Your task to perform on an android device: change the clock display to analog Image 0: 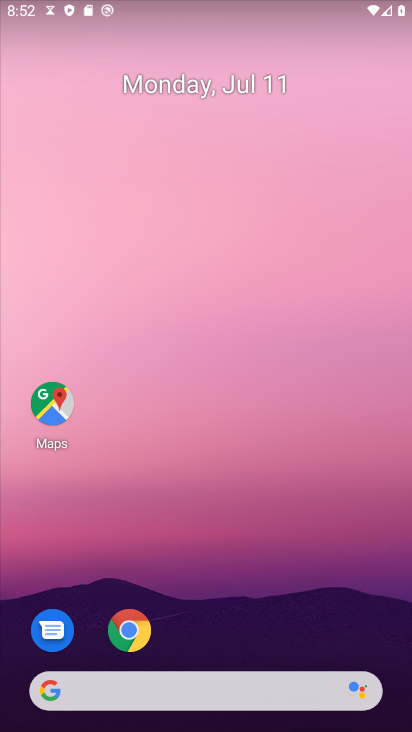
Step 0: drag from (197, 655) to (316, 58)
Your task to perform on an android device: change the clock display to analog Image 1: 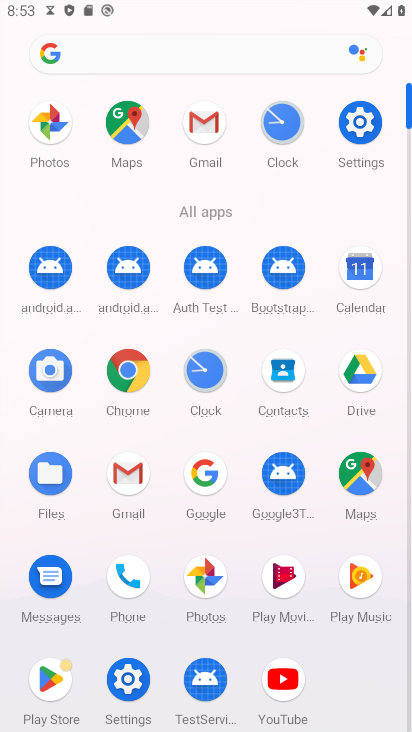
Step 1: click (213, 396)
Your task to perform on an android device: change the clock display to analog Image 2: 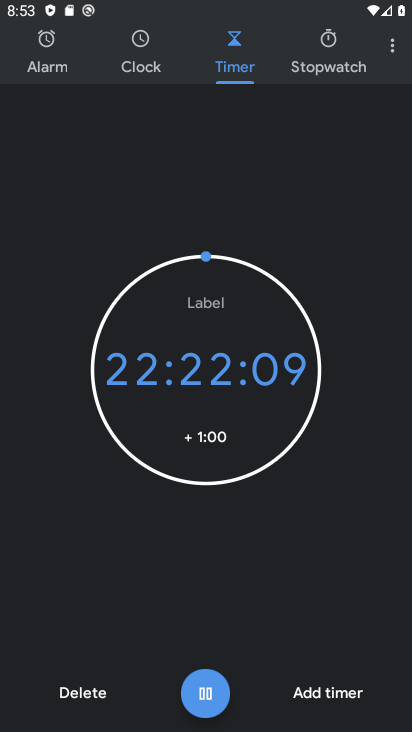
Step 2: click (390, 47)
Your task to perform on an android device: change the clock display to analog Image 3: 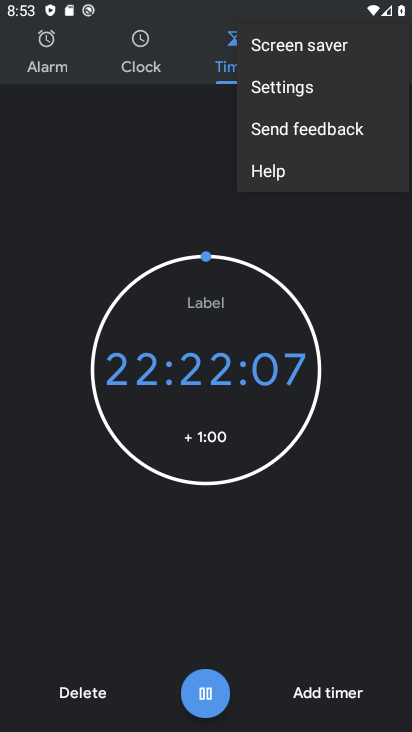
Step 3: click (346, 86)
Your task to perform on an android device: change the clock display to analog Image 4: 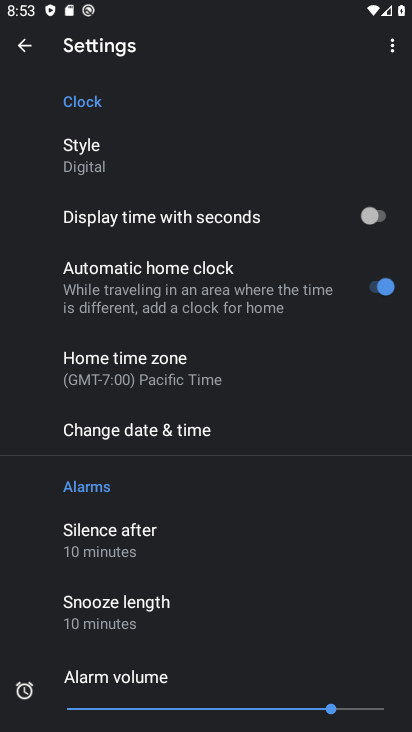
Step 4: click (151, 141)
Your task to perform on an android device: change the clock display to analog Image 5: 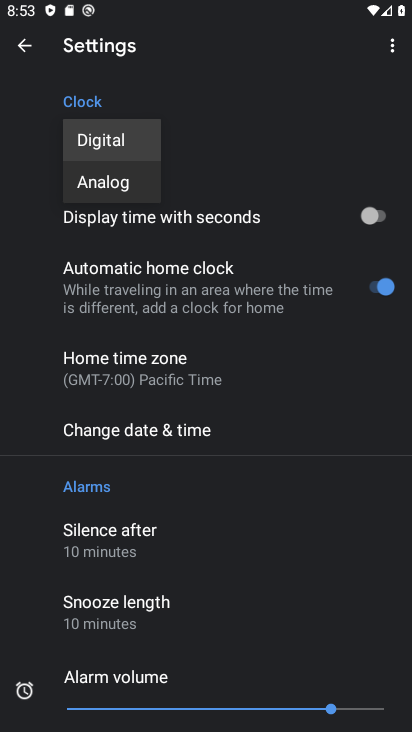
Step 5: click (120, 189)
Your task to perform on an android device: change the clock display to analog Image 6: 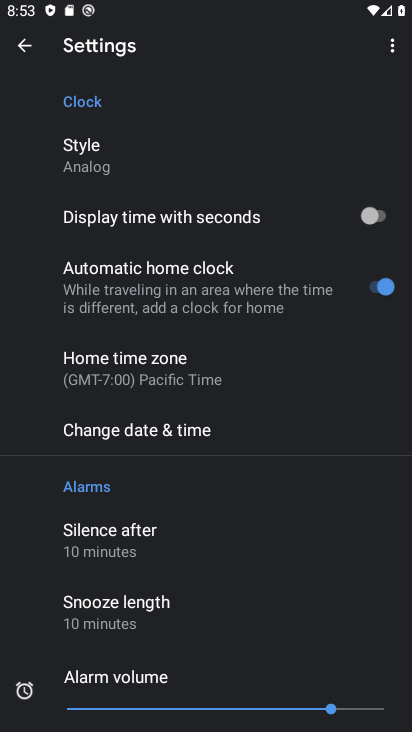
Step 6: task complete